Your task to perform on an android device: change alarm snooze length Image 0: 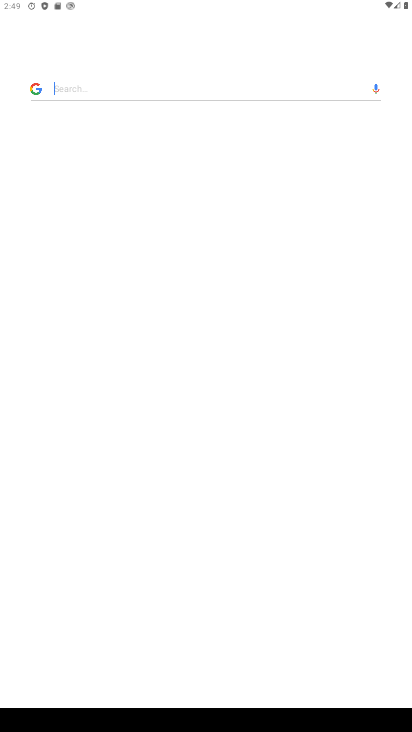
Step 0: press home button
Your task to perform on an android device: change alarm snooze length Image 1: 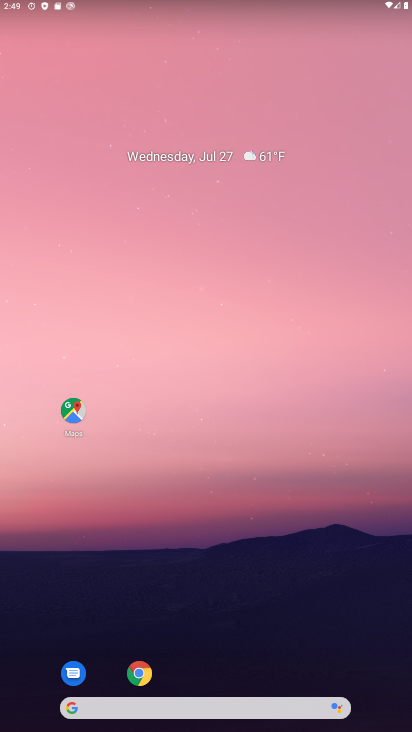
Step 1: drag from (39, 692) to (186, 236)
Your task to perform on an android device: change alarm snooze length Image 2: 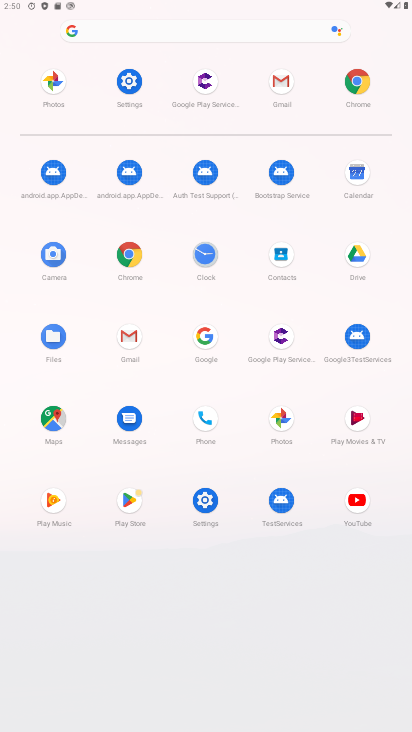
Step 2: click (207, 249)
Your task to perform on an android device: change alarm snooze length Image 3: 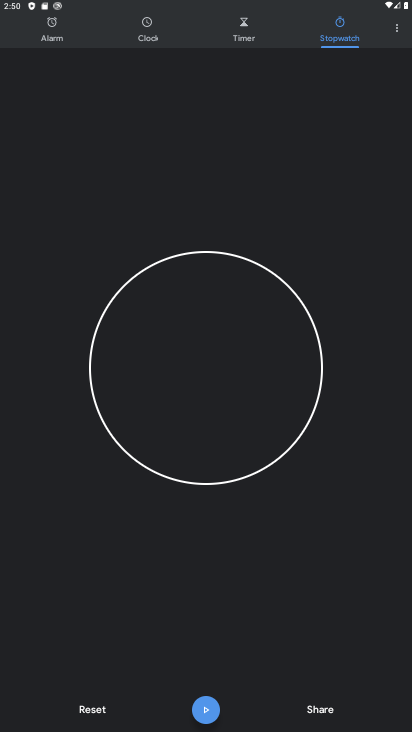
Step 3: click (399, 21)
Your task to perform on an android device: change alarm snooze length Image 4: 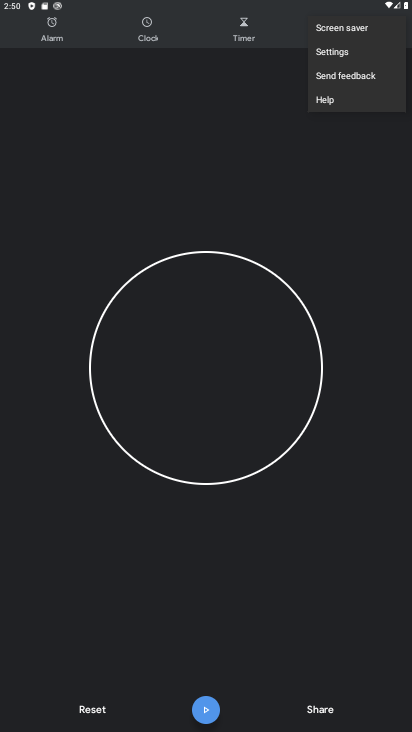
Step 4: click (34, 33)
Your task to perform on an android device: change alarm snooze length Image 5: 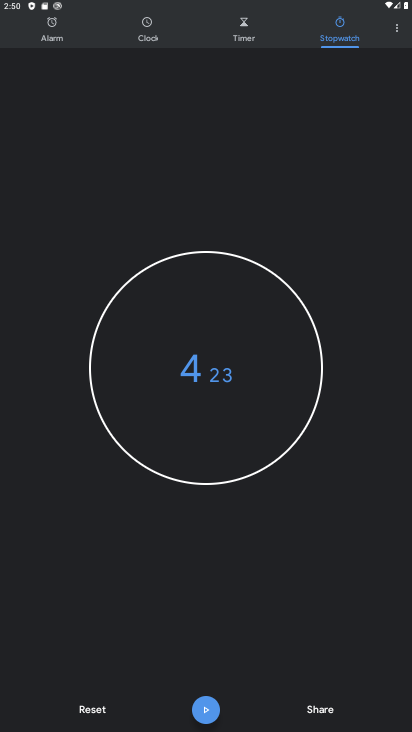
Step 5: click (52, 27)
Your task to perform on an android device: change alarm snooze length Image 6: 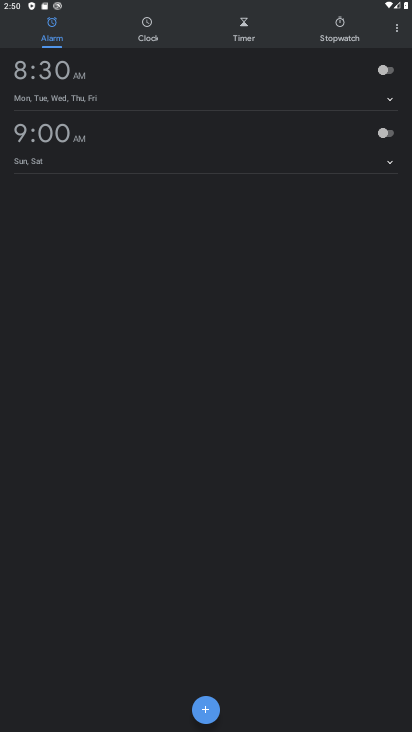
Step 6: click (394, 29)
Your task to perform on an android device: change alarm snooze length Image 7: 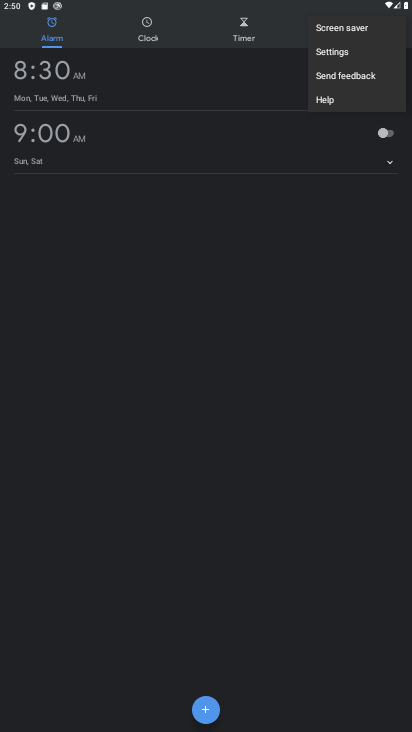
Step 7: click (336, 54)
Your task to perform on an android device: change alarm snooze length Image 8: 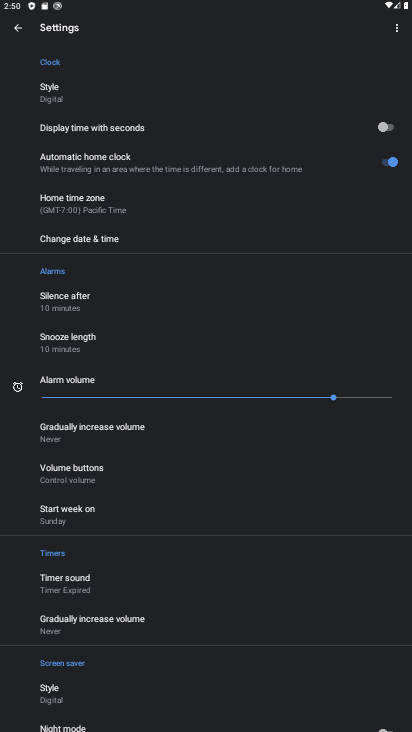
Step 8: click (89, 344)
Your task to perform on an android device: change alarm snooze length Image 9: 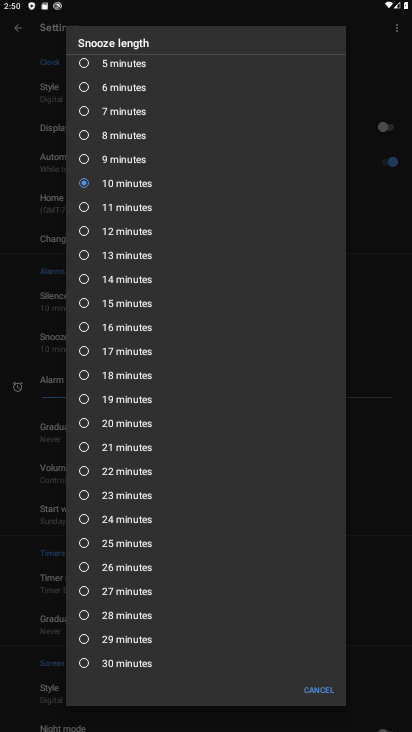
Step 9: click (82, 303)
Your task to perform on an android device: change alarm snooze length Image 10: 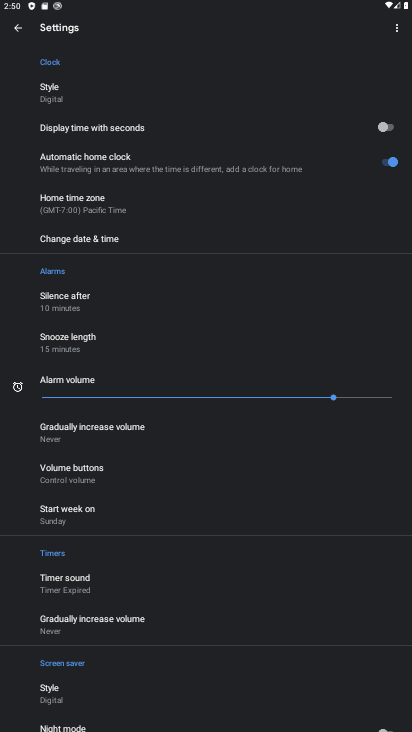
Step 10: task complete